Your task to perform on an android device: Set the phone to "Do not disturb". Image 0: 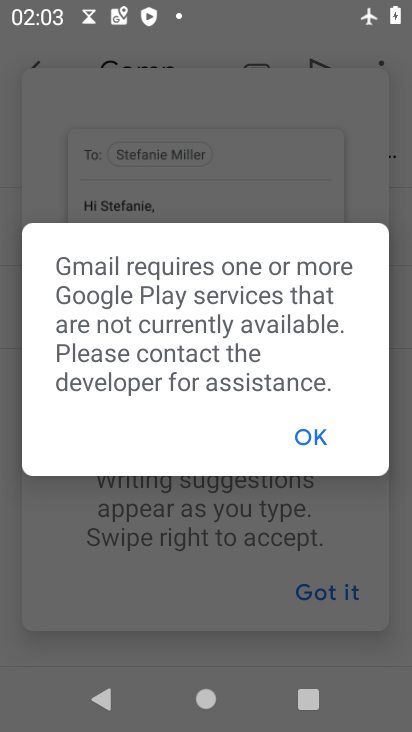
Step 0: press home button
Your task to perform on an android device: Set the phone to "Do not disturb". Image 1: 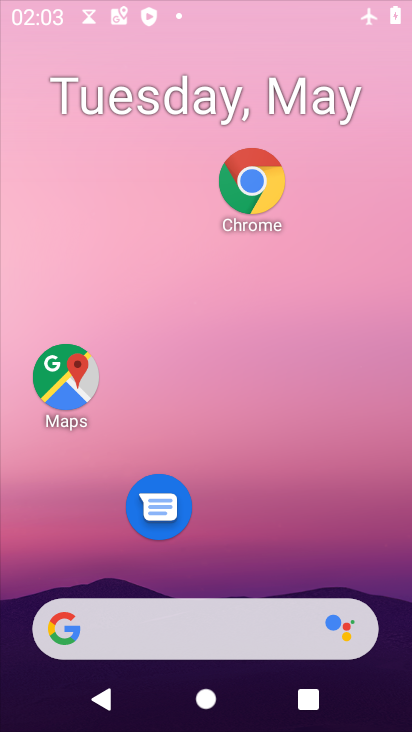
Step 1: click (186, 13)
Your task to perform on an android device: Set the phone to "Do not disturb". Image 2: 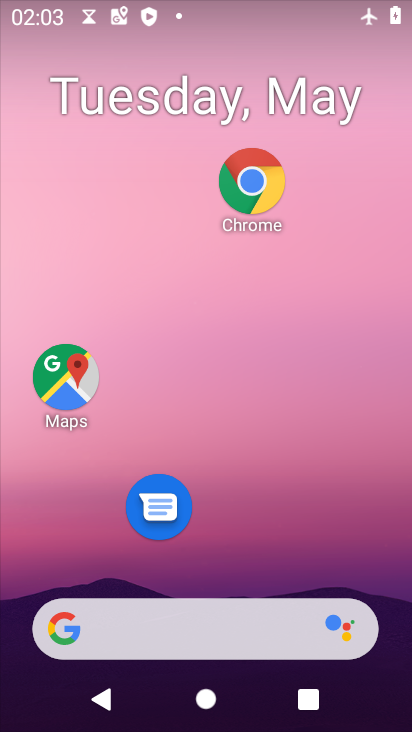
Step 2: drag from (216, 10) to (167, 439)
Your task to perform on an android device: Set the phone to "Do not disturb". Image 3: 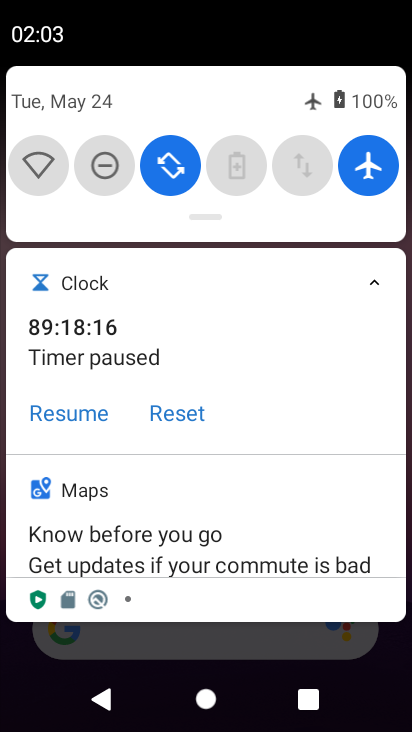
Step 3: click (94, 168)
Your task to perform on an android device: Set the phone to "Do not disturb". Image 4: 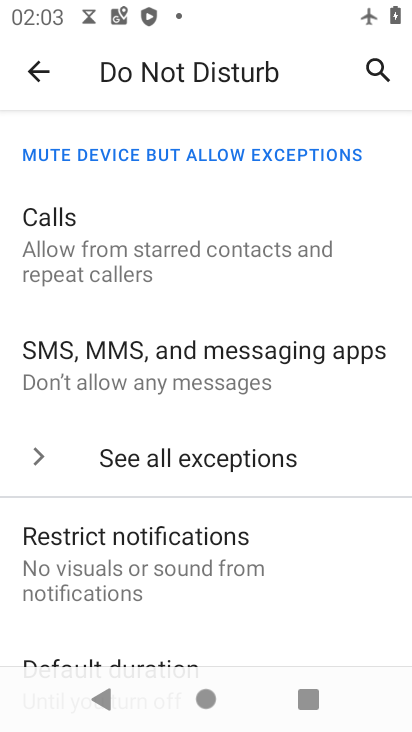
Step 4: drag from (186, 611) to (235, 310)
Your task to perform on an android device: Set the phone to "Do not disturb". Image 5: 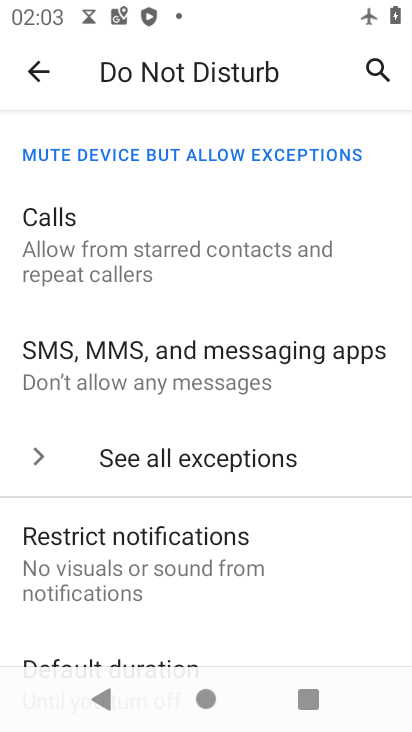
Step 5: drag from (239, 604) to (264, 406)
Your task to perform on an android device: Set the phone to "Do not disturb". Image 6: 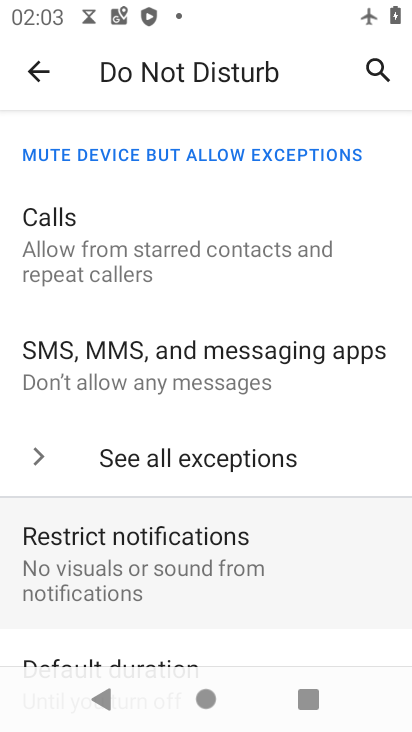
Step 6: drag from (254, 528) to (276, 365)
Your task to perform on an android device: Set the phone to "Do not disturb". Image 7: 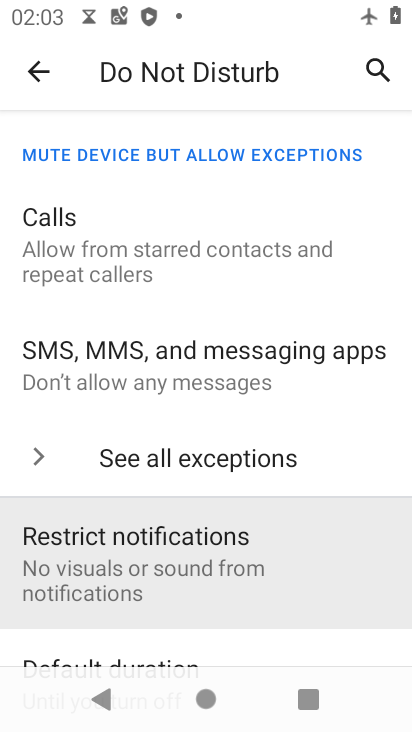
Step 7: drag from (243, 557) to (253, 331)
Your task to perform on an android device: Set the phone to "Do not disturb". Image 8: 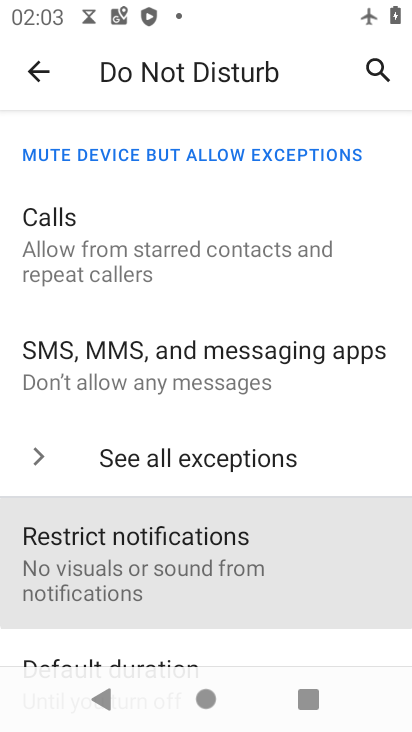
Step 8: drag from (225, 521) to (216, 249)
Your task to perform on an android device: Set the phone to "Do not disturb". Image 9: 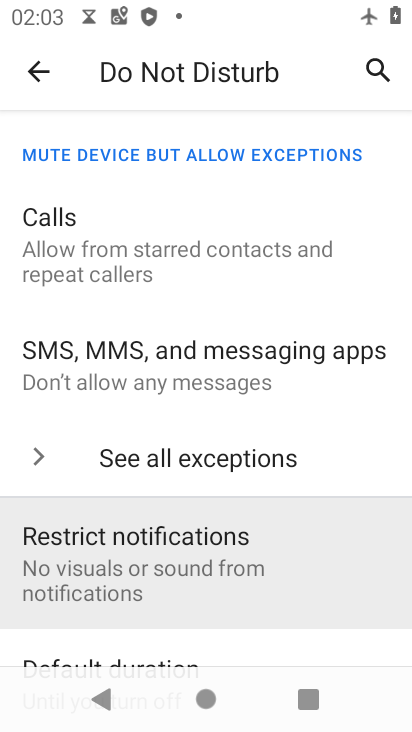
Step 9: drag from (240, 541) to (250, 280)
Your task to perform on an android device: Set the phone to "Do not disturb". Image 10: 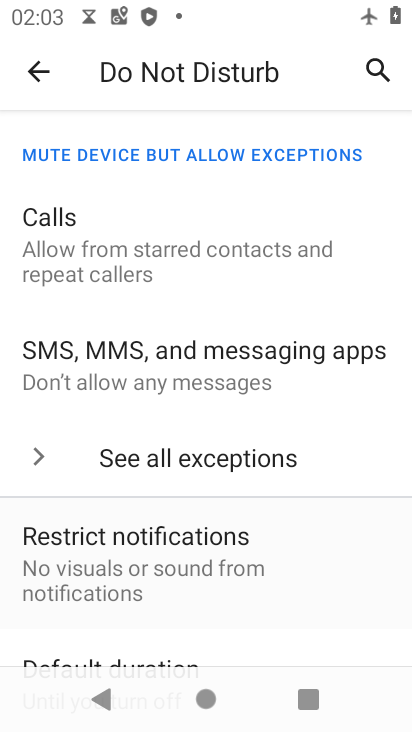
Step 10: drag from (153, 452) to (212, 213)
Your task to perform on an android device: Set the phone to "Do not disturb". Image 11: 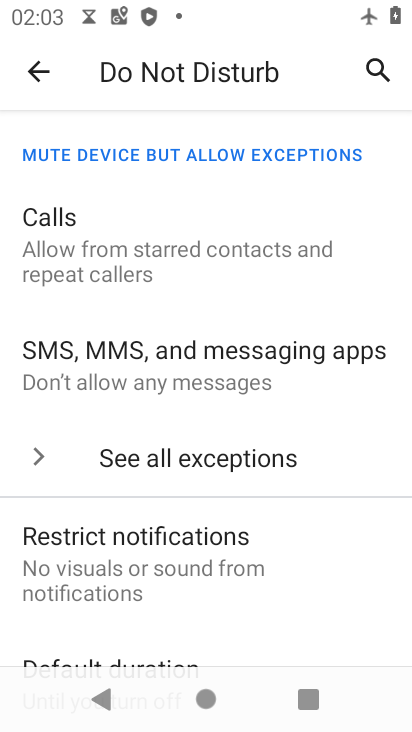
Step 11: drag from (227, 510) to (274, 244)
Your task to perform on an android device: Set the phone to "Do not disturb". Image 12: 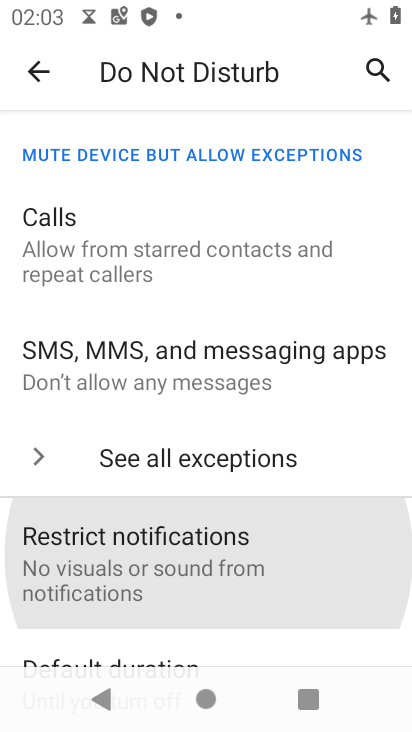
Step 12: drag from (242, 517) to (261, 265)
Your task to perform on an android device: Set the phone to "Do not disturb". Image 13: 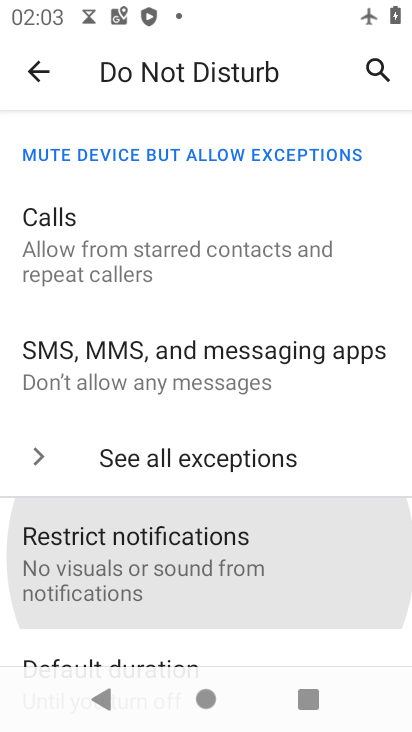
Step 13: drag from (183, 491) to (218, 160)
Your task to perform on an android device: Set the phone to "Do not disturb". Image 14: 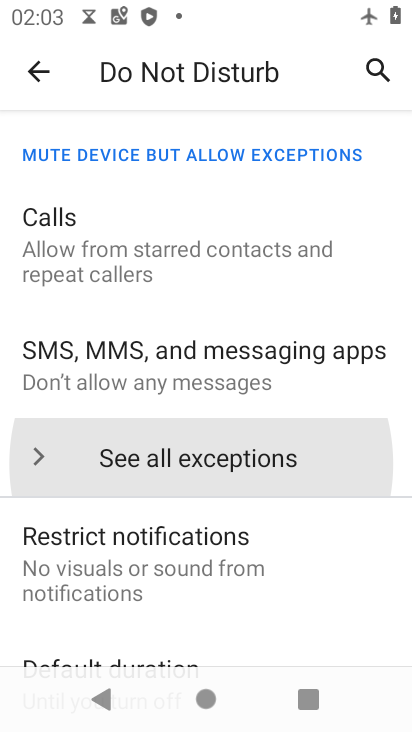
Step 14: drag from (183, 535) to (227, 248)
Your task to perform on an android device: Set the phone to "Do not disturb". Image 15: 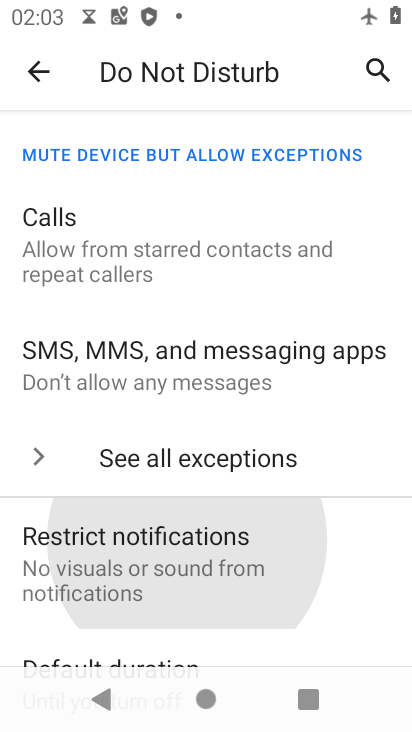
Step 15: drag from (186, 555) to (205, 263)
Your task to perform on an android device: Set the phone to "Do not disturb". Image 16: 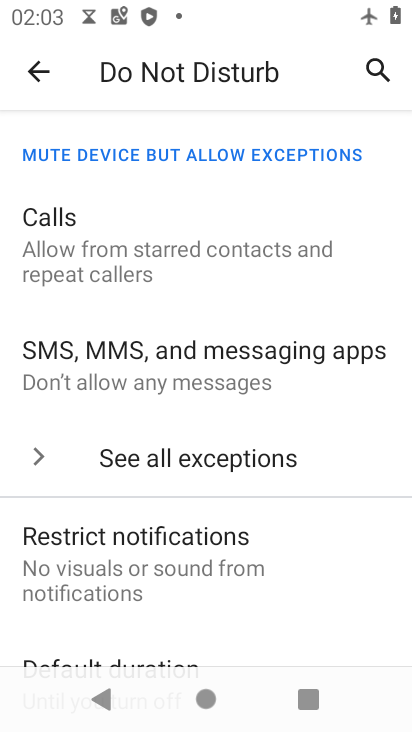
Step 16: drag from (142, 592) to (197, 286)
Your task to perform on an android device: Set the phone to "Do not disturb". Image 17: 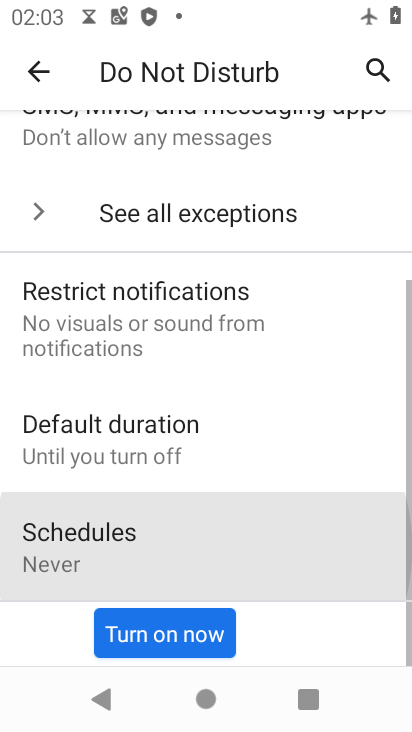
Step 17: drag from (180, 486) to (245, 236)
Your task to perform on an android device: Set the phone to "Do not disturb". Image 18: 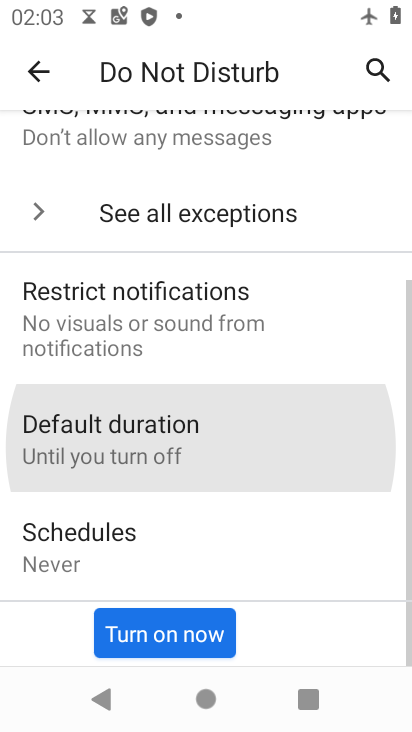
Step 18: drag from (224, 512) to (248, 390)
Your task to perform on an android device: Set the phone to "Do not disturb". Image 19: 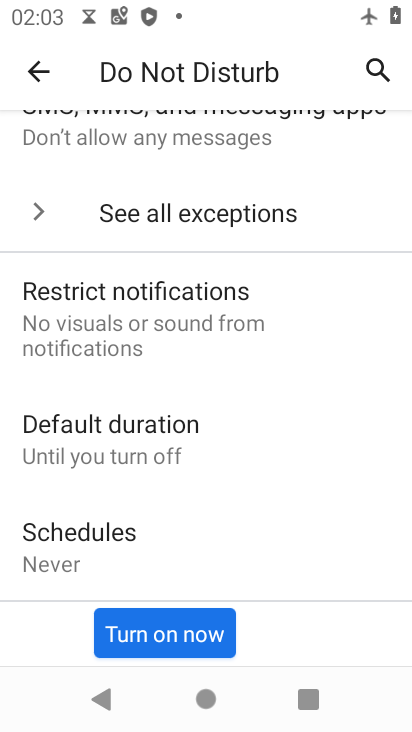
Step 19: click (156, 629)
Your task to perform on an android device: Set the phone to "Do not disturb". Image 20: 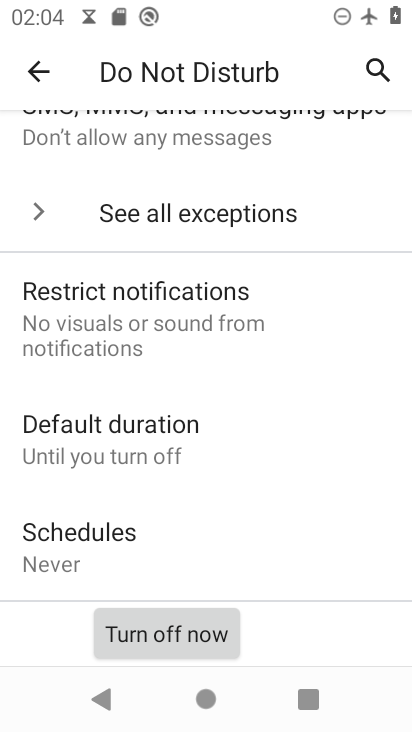
Step 20: task complete